Your task to perform on an android device: Open calendar and show me the first week of next month Image 0: 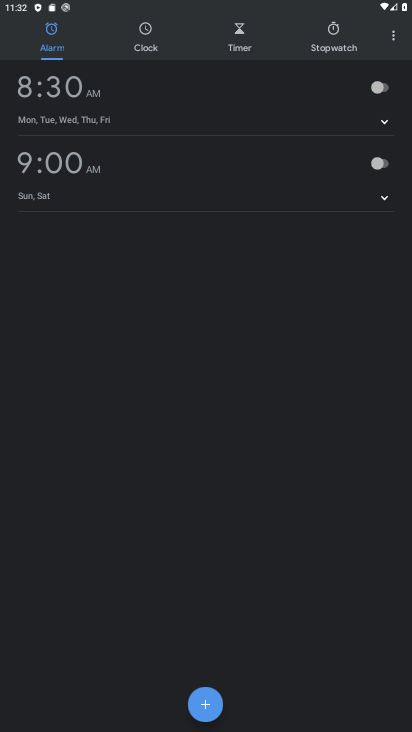
Step 0: press home button
Your task to perform on an android device: Open calendar and show me the first week of next month Image 1: 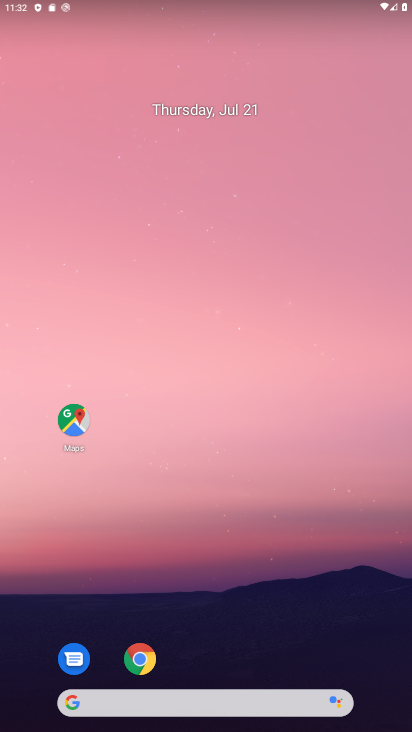
Step 1: click (199, 103)
Your task to perform on an android device: Open calendar and show me the first week of next month Image 2: 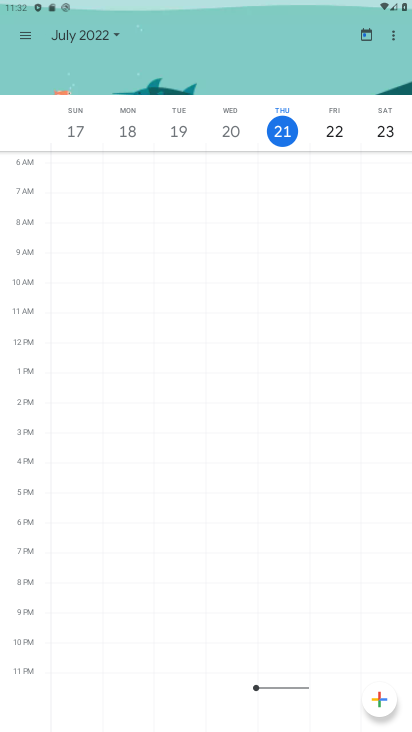
Step 2: click (88, 44)
Your task to perform on an android device: Open calendar and show me the first week of next month Image 3: 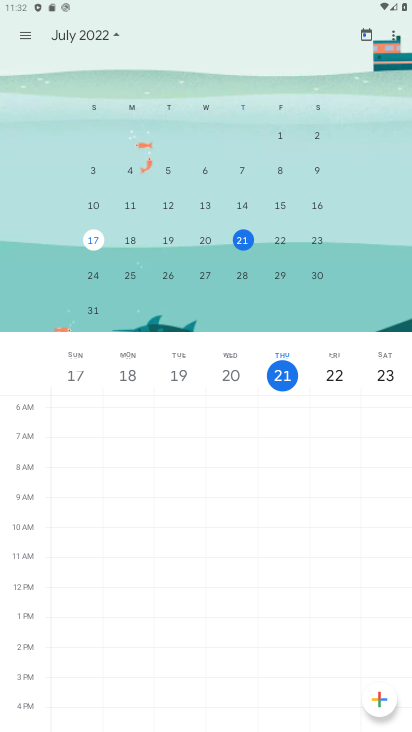
Step 3: click (281, 140)
Your task to perform on an android device: Open calendar and show me the first week of next month Image 4: 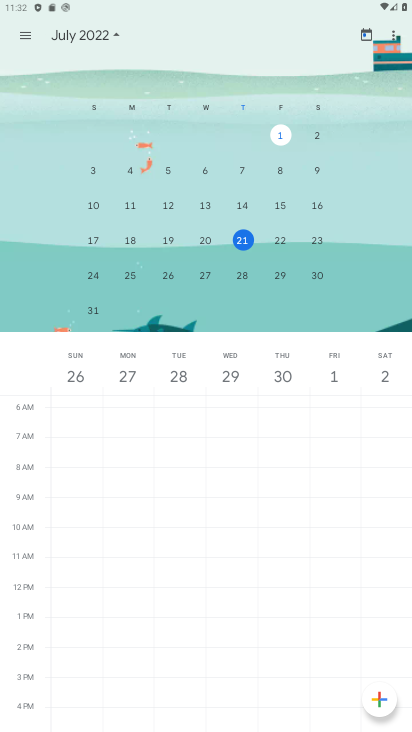
Step 4: task complete